Your task to perform on an android device: open the mobile data screen to see how much data has been used Image 0: 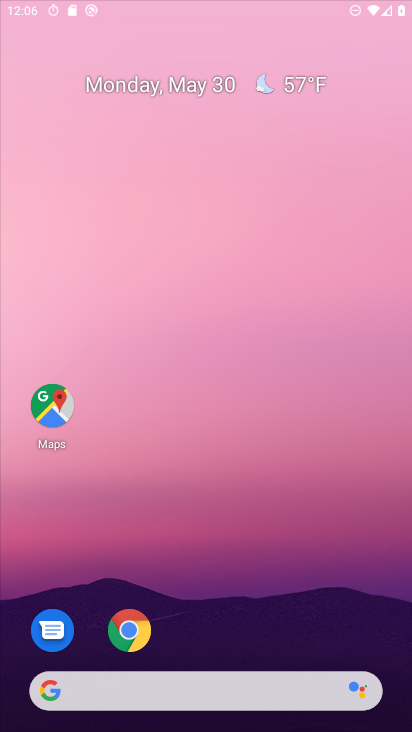
Step 0: press home button
Your task to perform on an android device: open the mobile data screen to see how much data has been used Image 1: 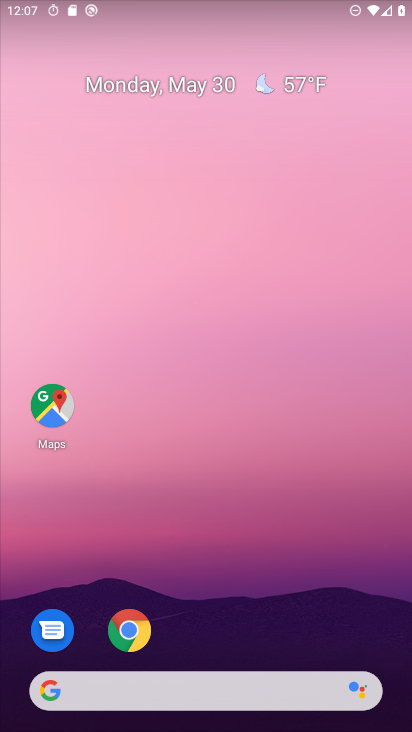
Step 1: drag from (294, 709) to (188, 116)
Your task to perform on an android device: open the mobile data screen to see how much data has been used Image 2: 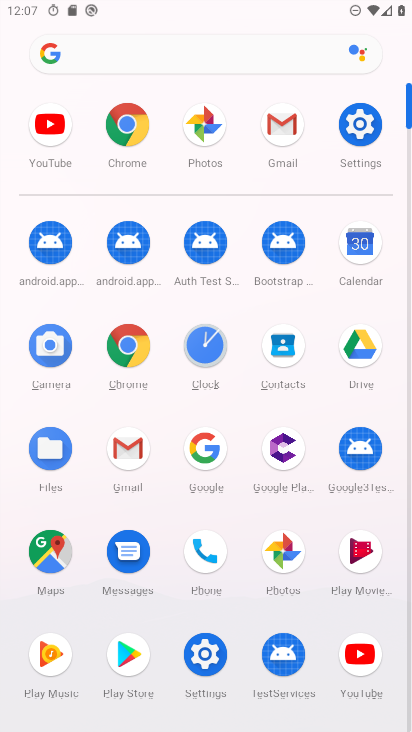
Step 2: click (218, 646)
Your task to perform on an android device: open the mobile data screen to see how much data has been used Image 3: 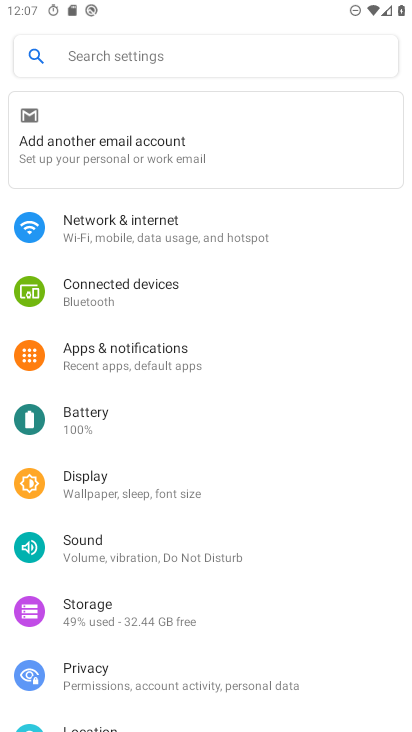
Step 3: click (136, 58)
Your task to perform on an android device: open the mobile data screen to see how much data has been used Image 4: 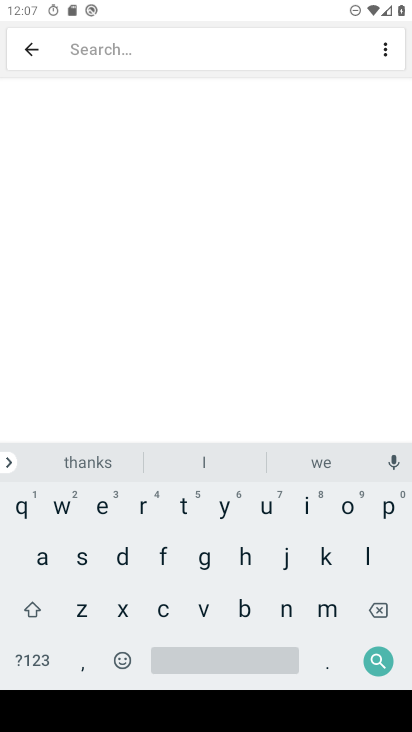
Step 4: click (122, 578)
Your task to perform on an android device: open the mobile data screen to see how much data has been used Image 5: 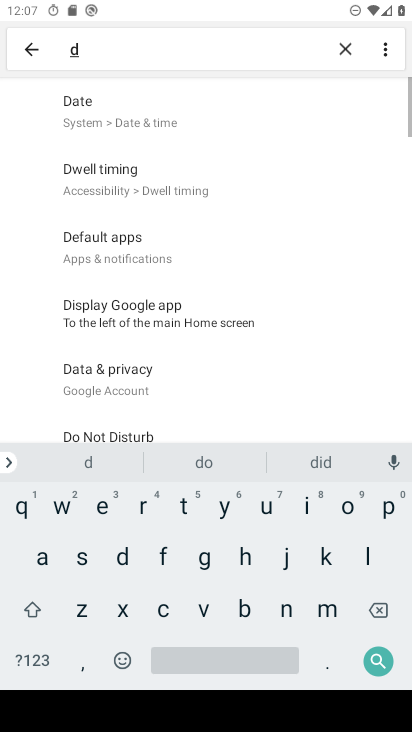
Step 5: click (34, 563)
Your task to perform on an android device: open the mobile data screen to see how much data has been used Image 6: 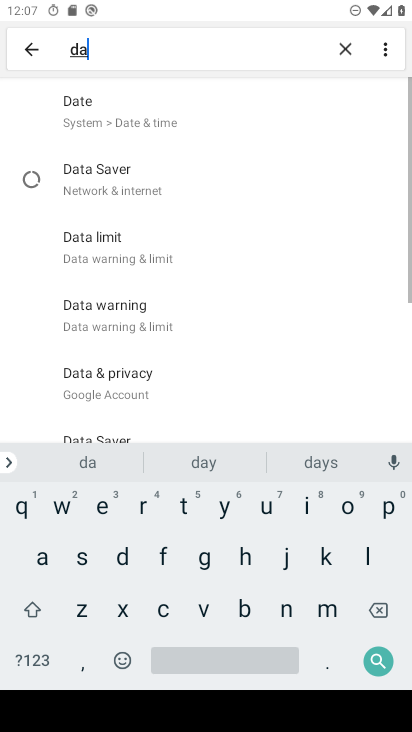
Step 6: click (185, 507)
Your task to perform on an android device: open the mobile data screen to see how much data has been used Image 7: 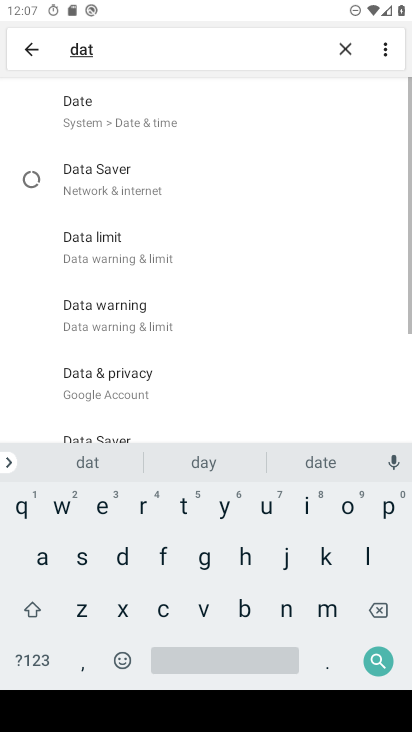
Step 7: click (31, 557)
Your task to perform on an android device: open the mobile data screen to see how much data has been used Image 8: 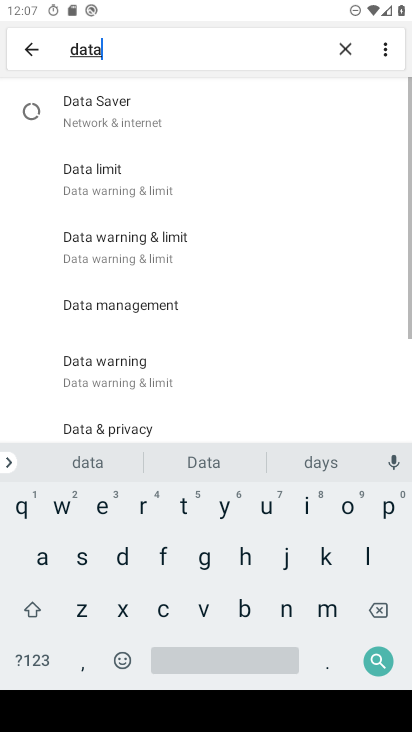
Step 8: click (237, 664)
Your task to perform on an android device: open the mobile data screen to see how much data has been used Image 9: 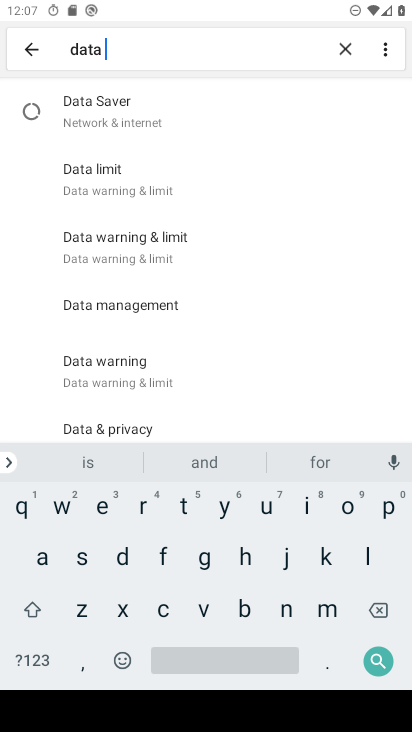
Step 9: click (268, 504)
Your task to perform on an android device: open the mobile data screen to see how much data has been used Image 10: 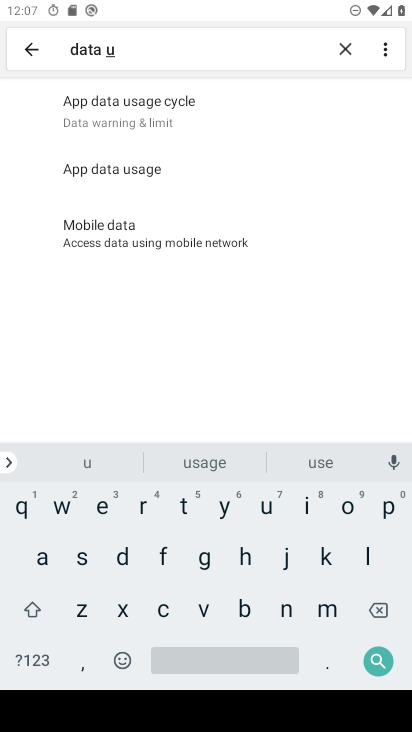
Step 10: click (140, 183)
Your task to perform on an android device: open the mobile data screen to see how much data has been used Image 11: 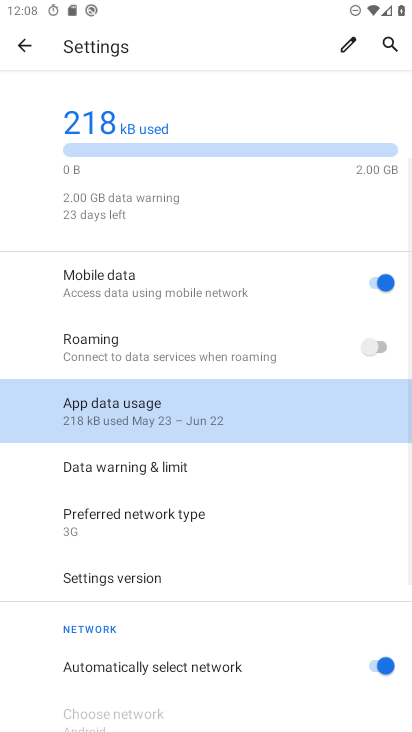
Step 11: click (81, 388)
Your task to perform on an android device: open the mobile data screen to see how much data has been used Image 12: 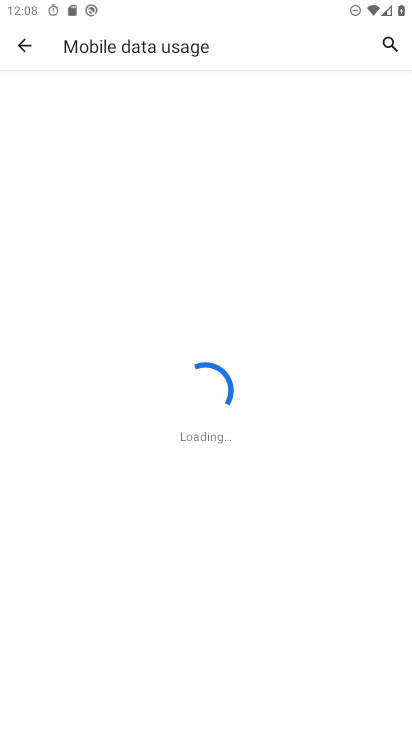
Step 12: task complete